Your task to perform on an android device: Go to Google Image 0: 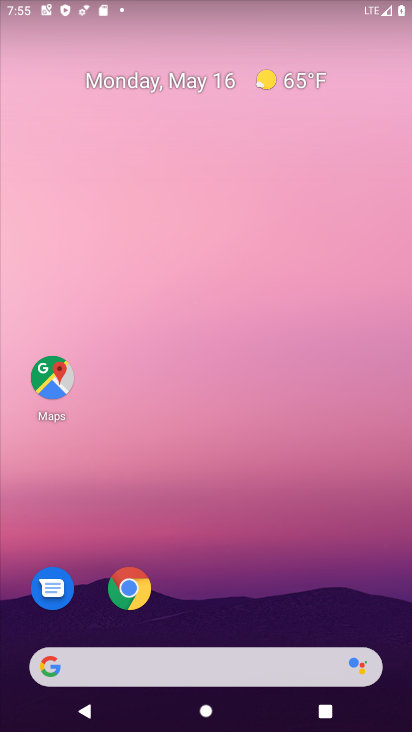
Step 0: drag from (213, 459) to (152, 82)
Your task to perform on an android device: Go to Google Image 1: 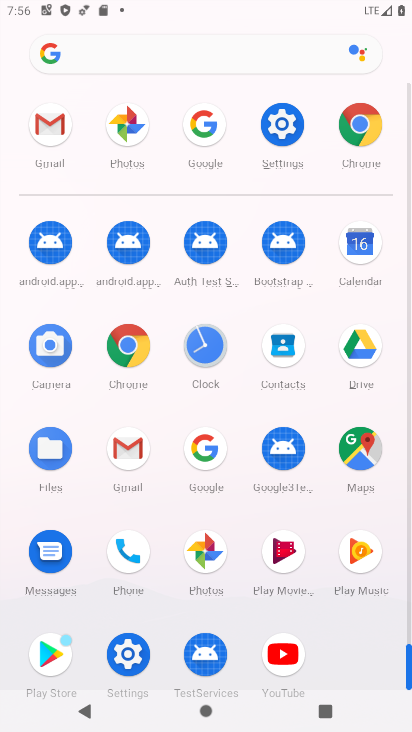
Step 1: drag from (7, 549) to (24, 293)
Your task to perform on an android device: Go to Google Image 2: 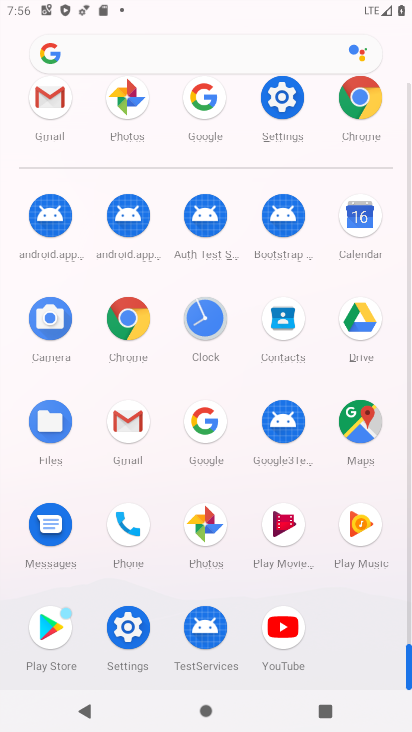
Step 2: click (130, 318)
Your task to perform on an android device: Go to Google Image 3: 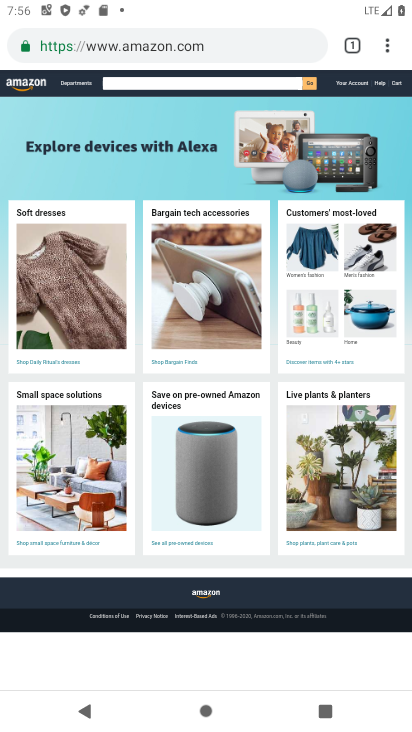
Step 3: click (198, 41)
Your task to perform on an android device: Go to Google Image 4: 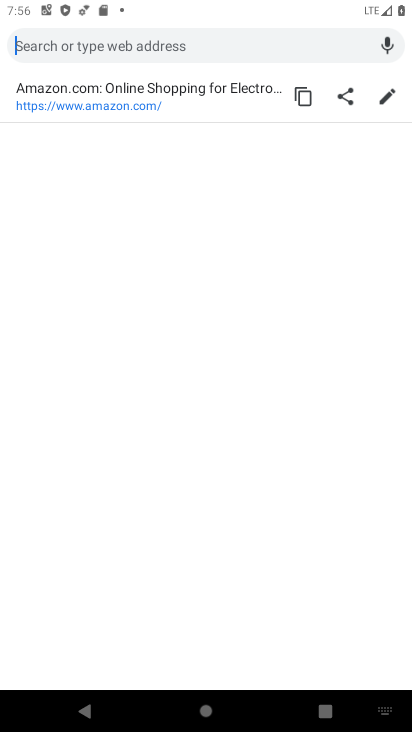
Step 4: type "Google"
Your task to perform on an android device: Go to Google Image 5: 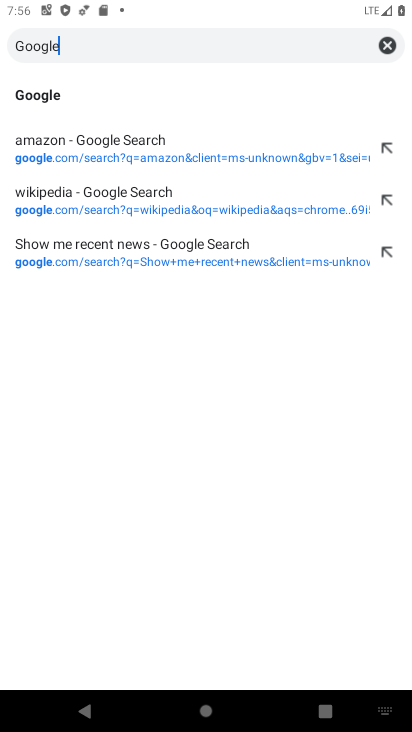
Step 5: type ""
Your task to perform on an android device: Go to Google Image 6: 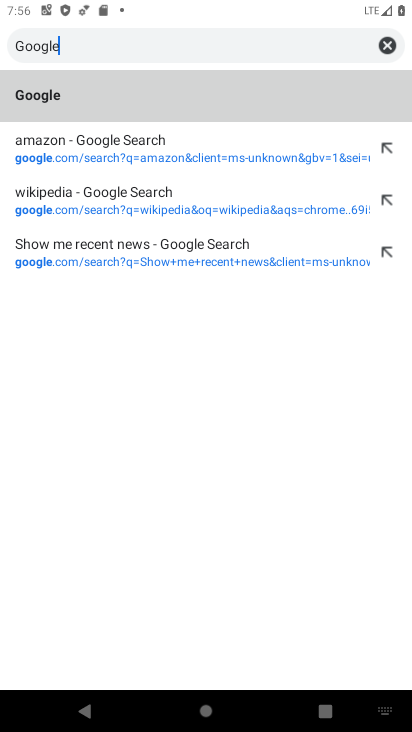
Step 6: click (102, 101)
Your task to perform on an android device: Go to Google Image 7: 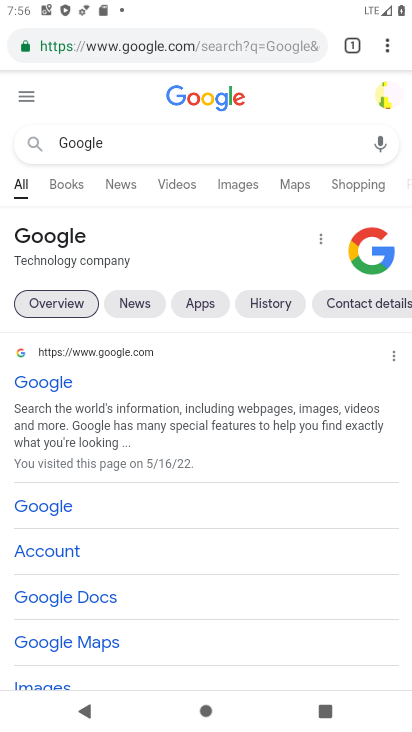
Step 7: click (40, 378)
Your task to perform on an android device: Go to Google Image 8: 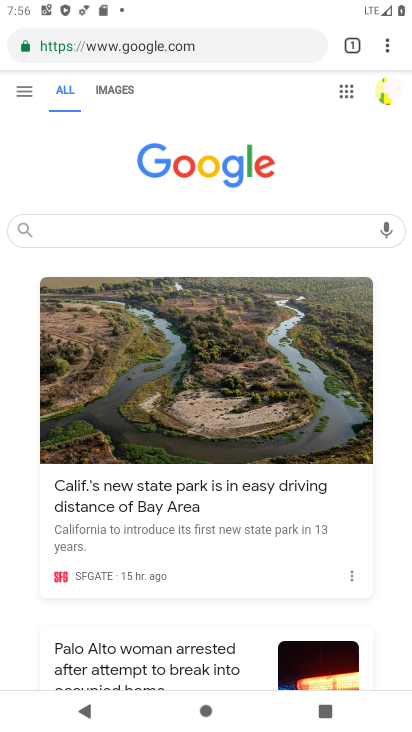
Step 8: task complete